Your task to perform on an android device: Set the phone to "Do not disturb". Image 0: 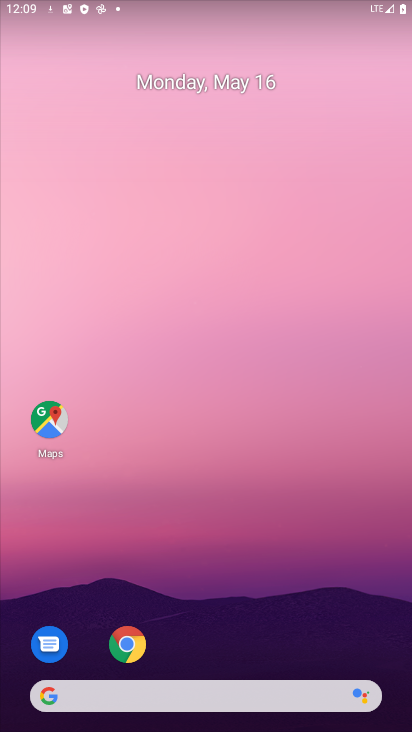
Step 0: drag from (210, 703) to (344, 266)
Your task to perform on an android device: Set the phone to "Do not disturb". Image 1: 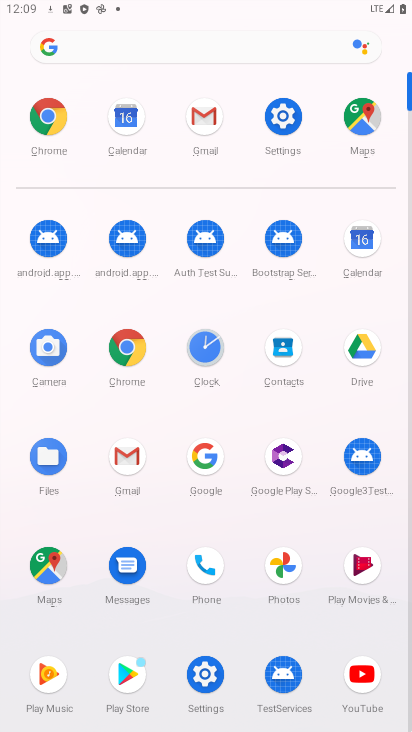
Step 1: click (282, 117)
Your task to perform on an android device: Set the phone to "Do not disturb". Image 2: 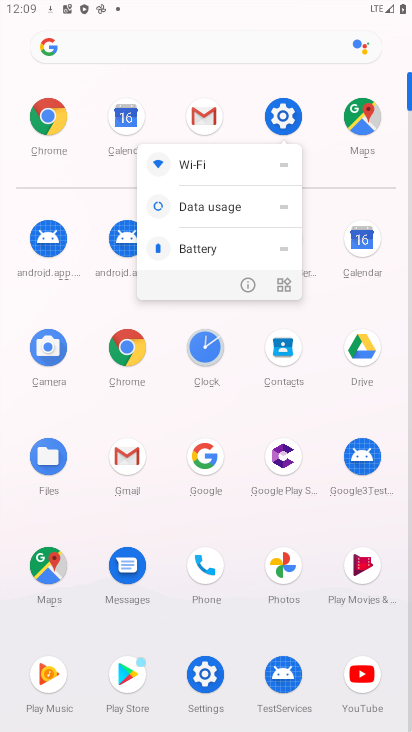
Step 2: click (276, 115)
Your task to perform on an android device: Set the phone to "Do not disturb". Image 3: 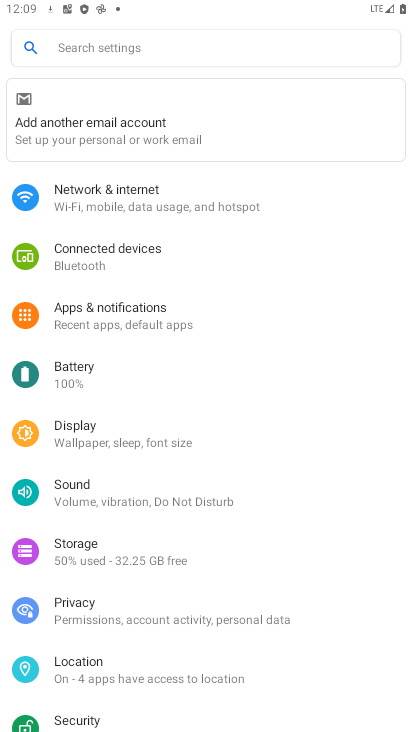
Step 3: click (117, 47)
Your task to perform on an android device: Set the phone to "Do not disturb". Image 4: 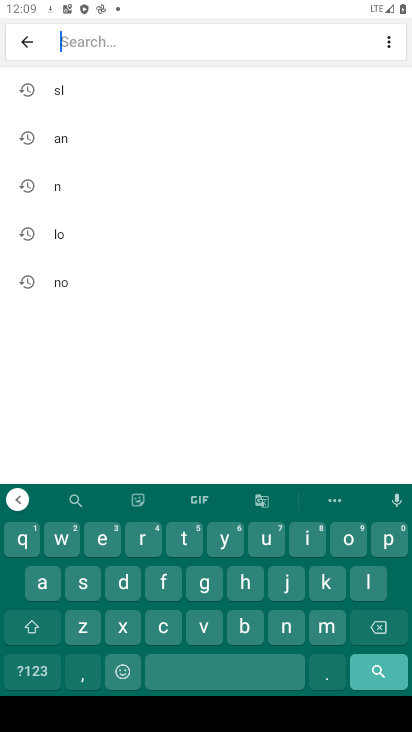
Step 4: click (131, 589)
Your task to perform on an android device: Set the phone to "Do not disturb". Image 5: 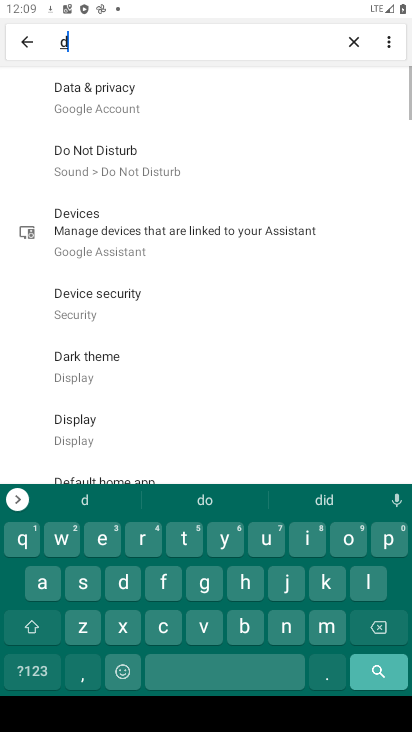
Step 5: click (283, 633)
Your task to perform on an android device: Set the phone to "Do not disturb". Image 6: 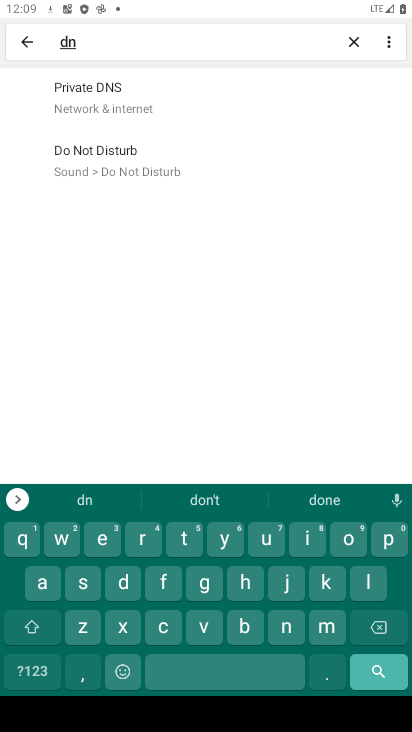
Step 6: click (107, 142)
Your task to perform on an android device: Set the phone to "Do not disturb". Image 7: 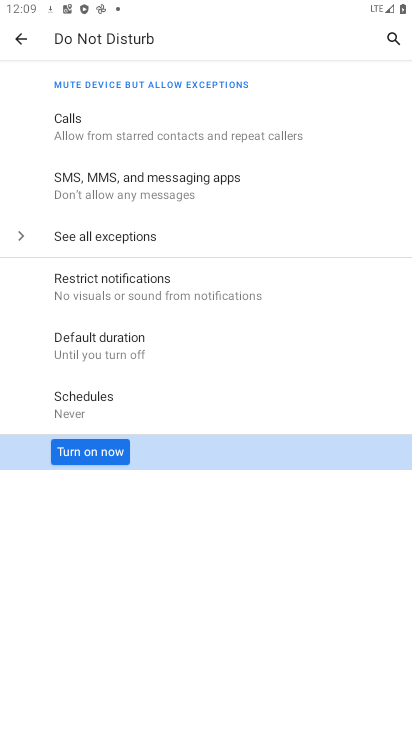
Step 7: click (92, 447)
Your task to perform on an android device: Set the phone to "Do not disturb". Image 8: 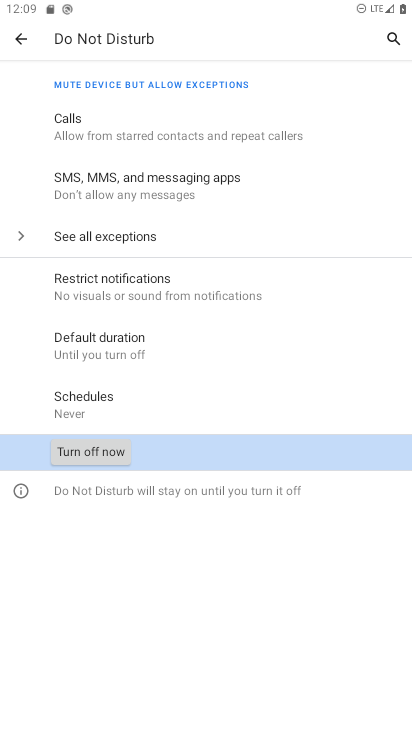
Step 8: task complete